Your task to perform on an android device: Open eBay Image 0: 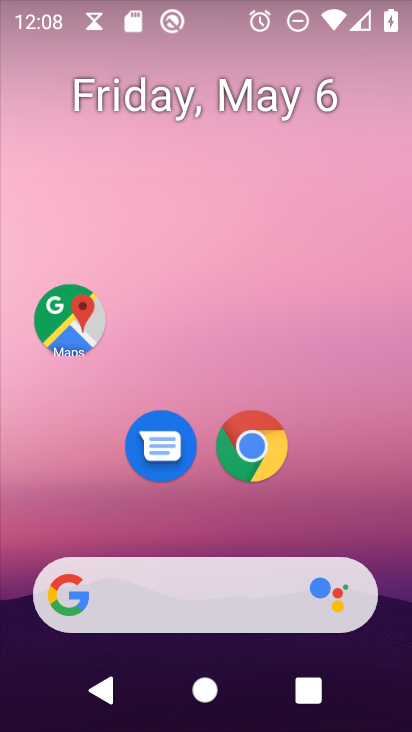
Step 0: press home button
Your task to perform on an android device: Open eBay Image 1: 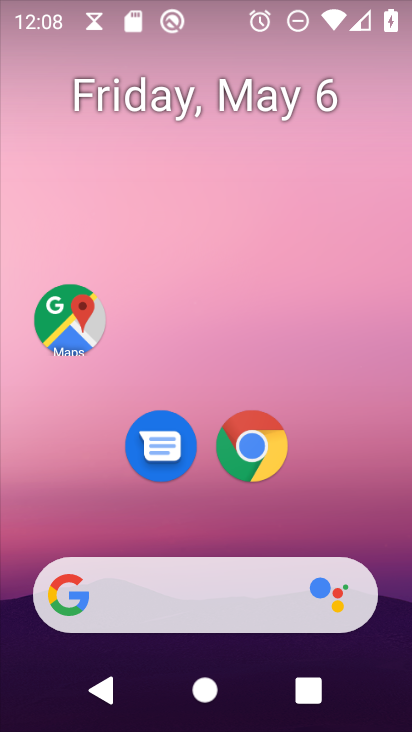
Step 1: drag from (297, 631) to (231, 234)
Your task to perform on an android device: Open eBay Image 2: 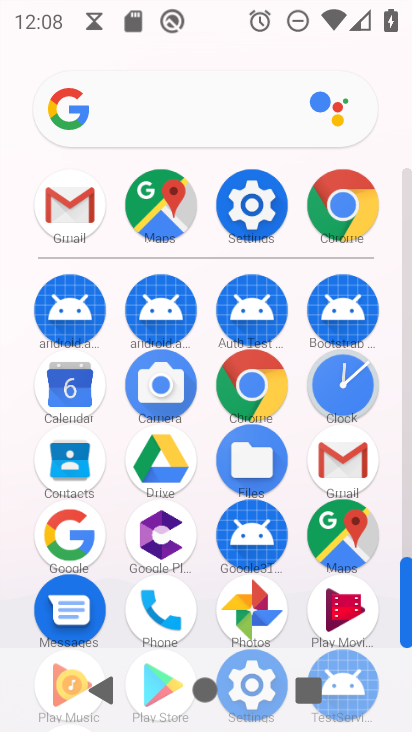
Step 2: click (313, 205)
Your task to perform on an android device: Open eBay Image 3: 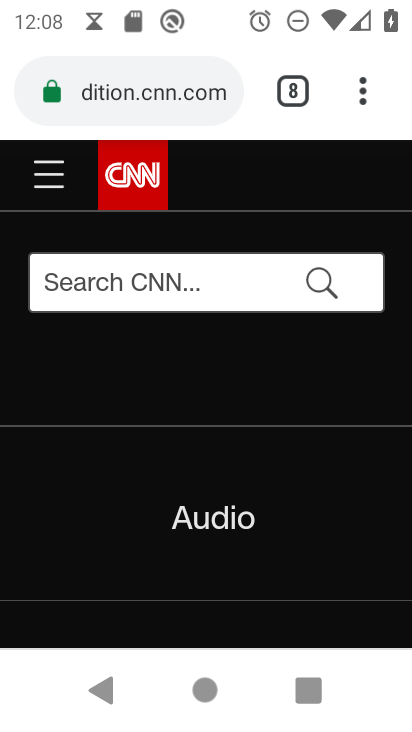
Step 3: click (283, 101)
Your task to perform on an android device: Open eBay Image 4: 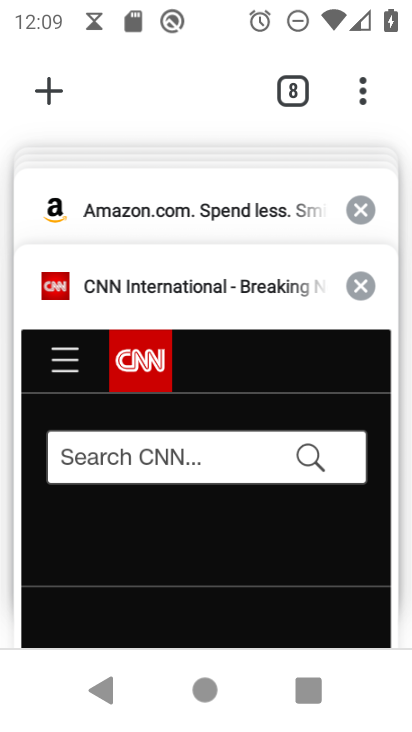
Step 4: click (55, 106)
Your task to perform on an android device: Open eBay Image 5: 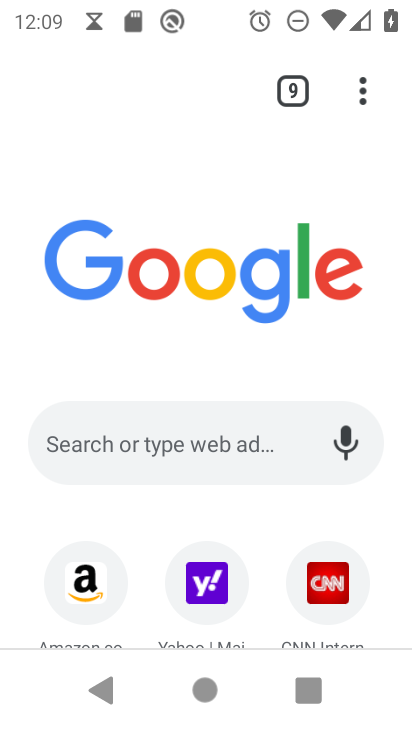
Step 5: click (146, 451)
Your task to perform on an android device: Open eBay Image 6: 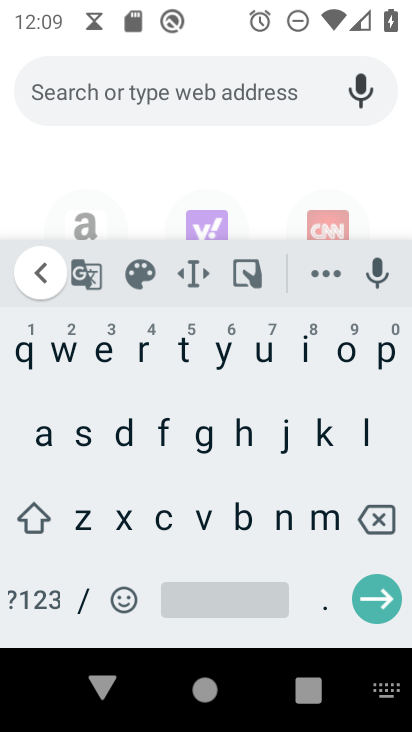
Step 6: click (112, 350)
Your task to perform on an android device: Open eBay Image 7: 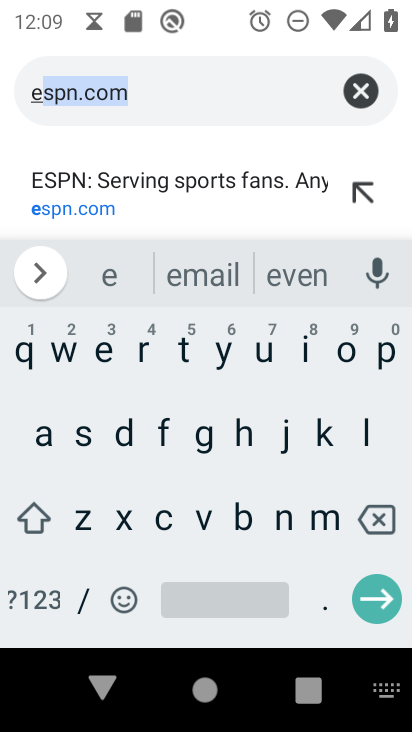
Step 7: click (235, 512)
Your task to perform on an android device: Open eBay Image 8: 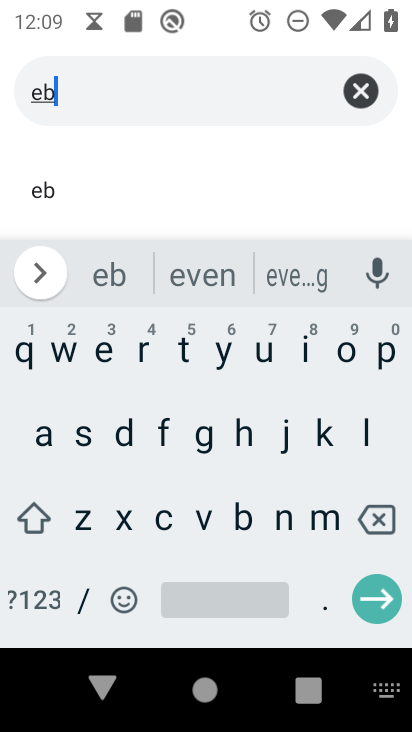
Step 8: click (61, 433)
Your task to perform on an android device: Open eBay Image 9: 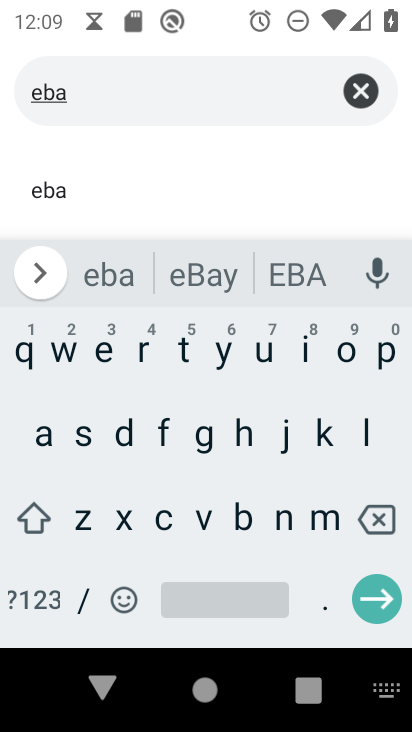
Step 9: click (205, 282)
Your task to perform on an android device: Open eBay Image 10: 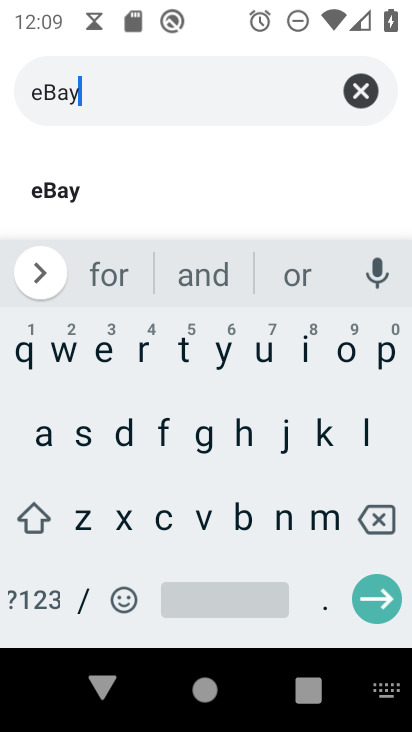
Step 10: click (367, 610)
Your task to perform on an android device: Open eBay Image 11: 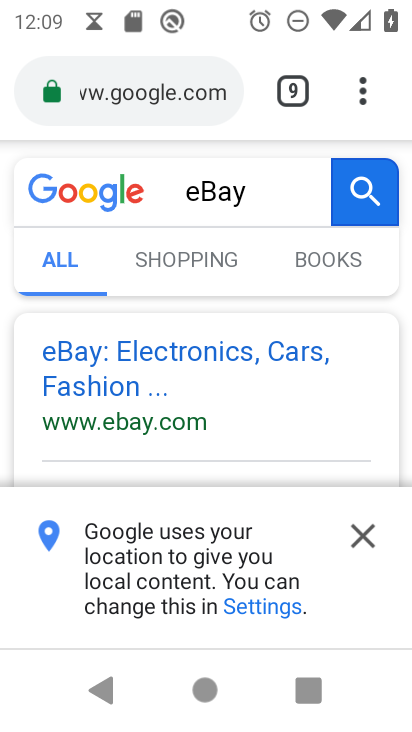
Step 11: click (365, 532)
Your task to perform on an android device: Open eBay Image 12: 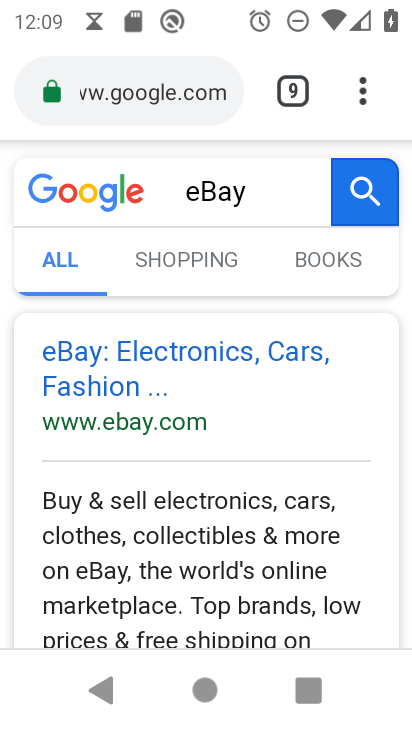
Step 12: click (156, 375)
Your task to perform on an android device: Open eBay Image 13: 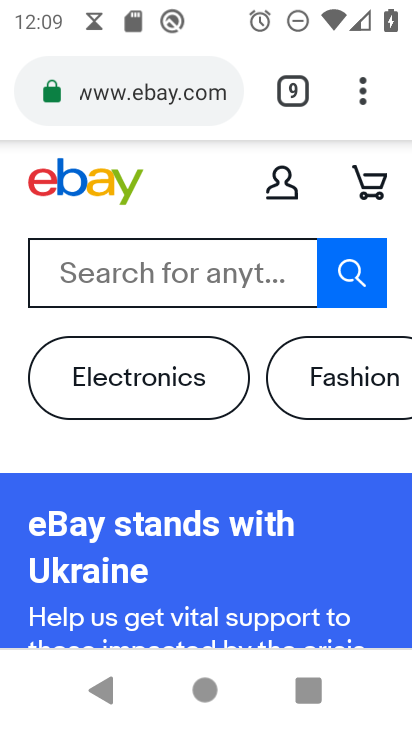
Step 13: task complete